Your task to perform on an android device: Open Chrome and go to settings Image 0: 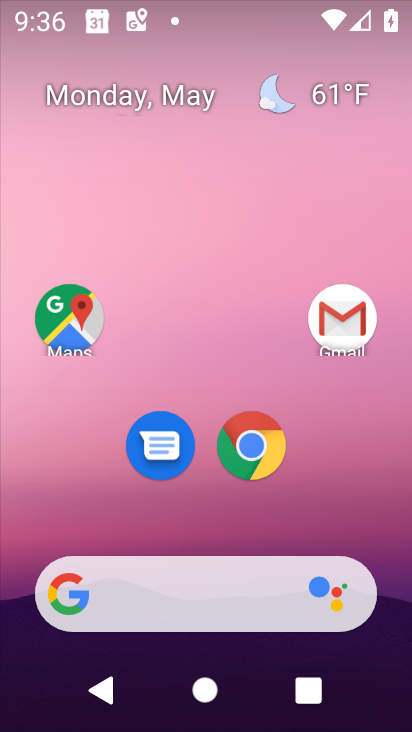
Step 0: drag from (377, 499) to (374, 144)
Your task to perform on an android device: Open Chrome and go to settings Image 1: 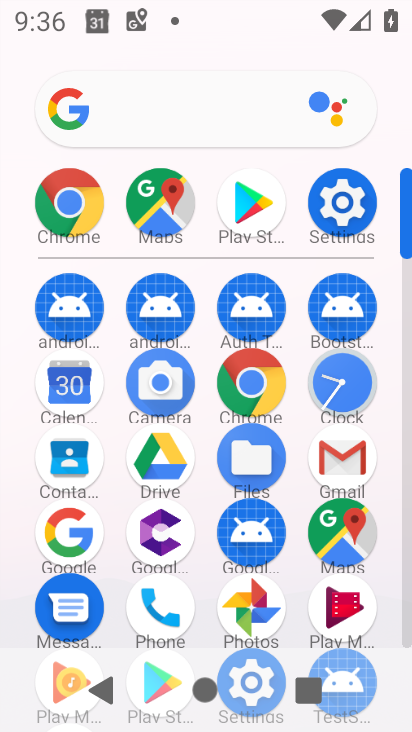
Step 1: click (244, 375)
Your task to perform on an android device: Open Chrome and go to settings Image 2: 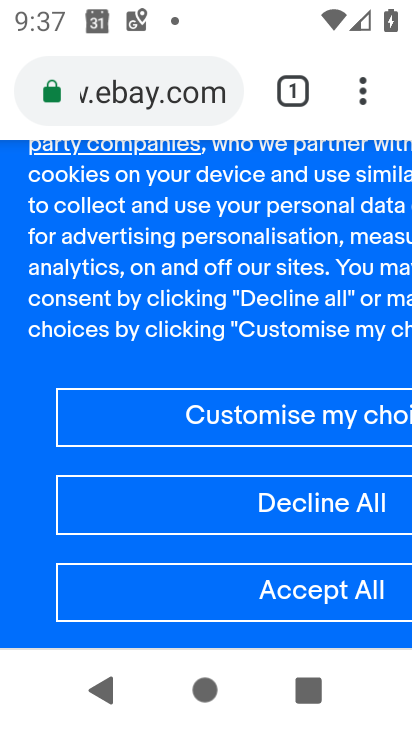
Step 2: click (366, 96)
Your task to perform on an android device: Open Chrome and go to settings Image 3: 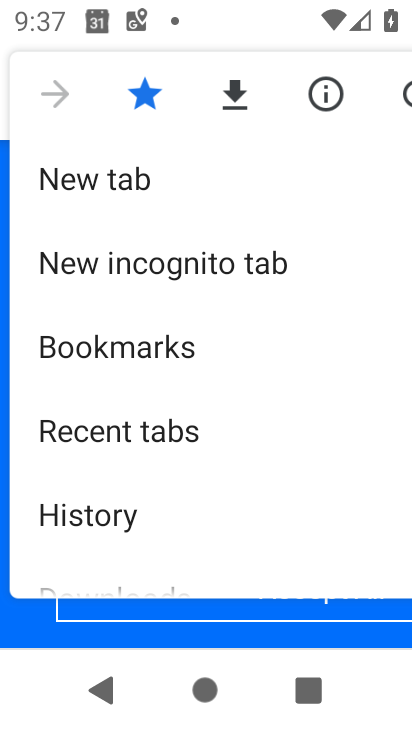
Step 3: drag from (318, 412) to (328, 342)
Your task to perform on an android device: Open Chrome and go to settings Image 4: 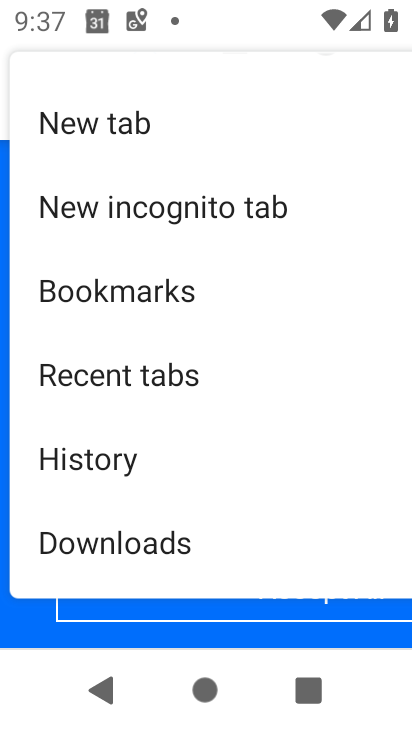
Step 4: drag from (345, 417) to (346, 342)
Your task to perform on an android device: Open Chrome and go to settings Image 5: 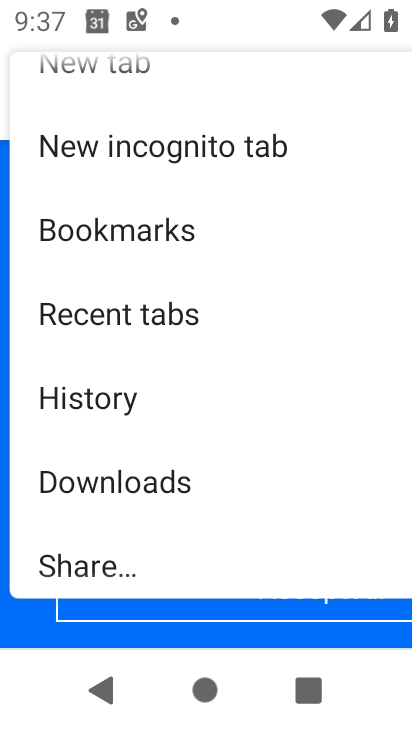
Step 5: drag from (350, 426) to (348, 357)
Your task to perform on an android device: Open Chrome and go to settings Image 6: 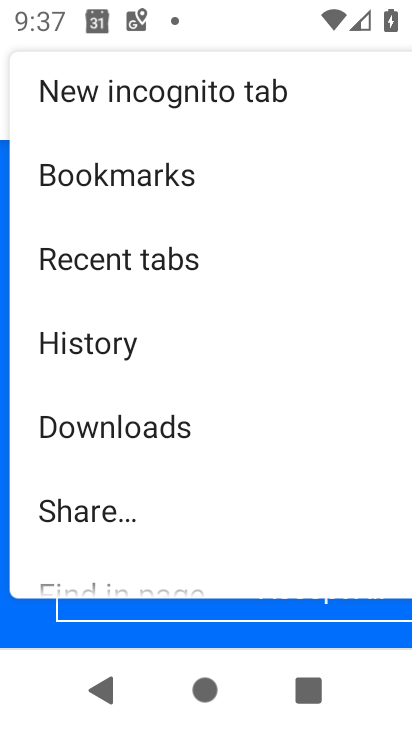
Step 6: drag from (349, 431) to (350, 321)
Your task to perform on an android device: Open Chrome and go to settings Image 7: 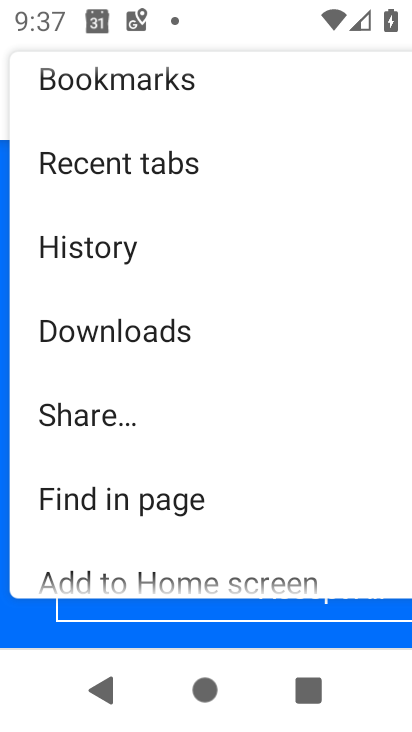
Step 7: drag from (349, 421) to (350, 308)
Your task to perform on an android device: Open Chrome and go to settings Image 8: 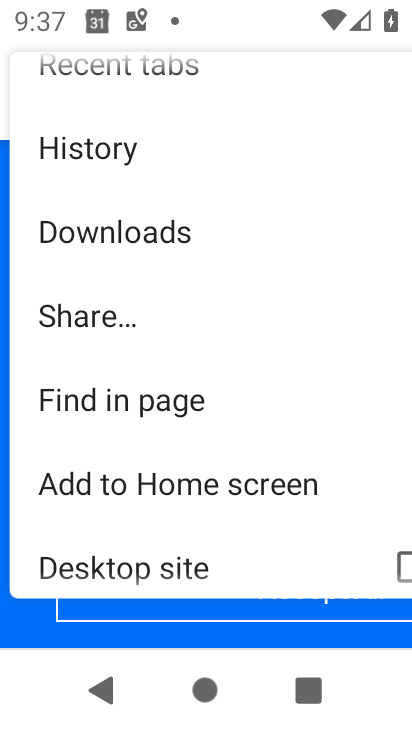
Step 8: drag from (333, 455) to (338, 303)
Your task to perform on an android device: Open Chrome and go to settings Image 9: 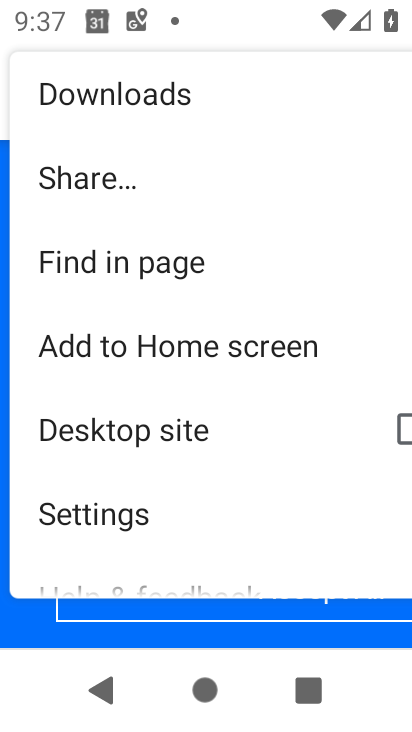
Step 9: drag from (321, 474) to (314, 289)
Your task to perform on an android device: Open Chrome and go to settings Image 10: 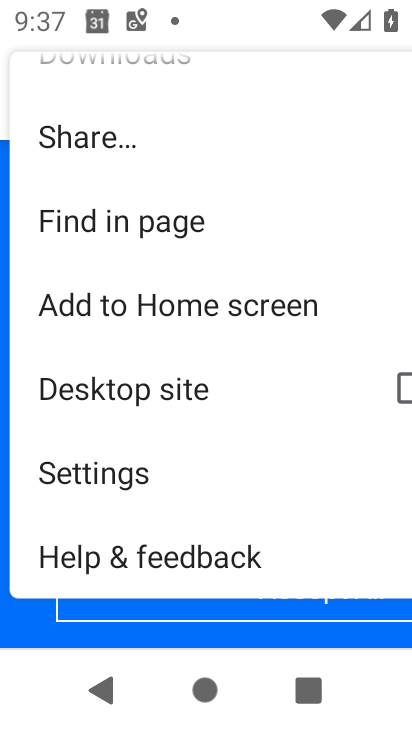
Step 10: click (185, 493)
Your task to perform on an android device: Open Chrome and go to settings Image 11: 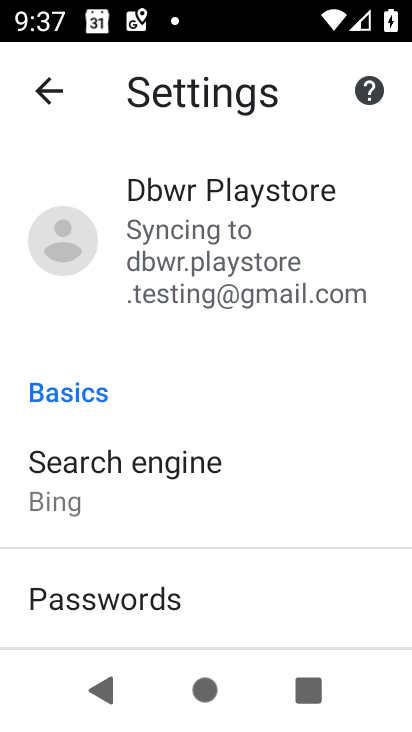
Step 11: task complete